Your task to perform on an android device: empty trash in google photos Image 0: 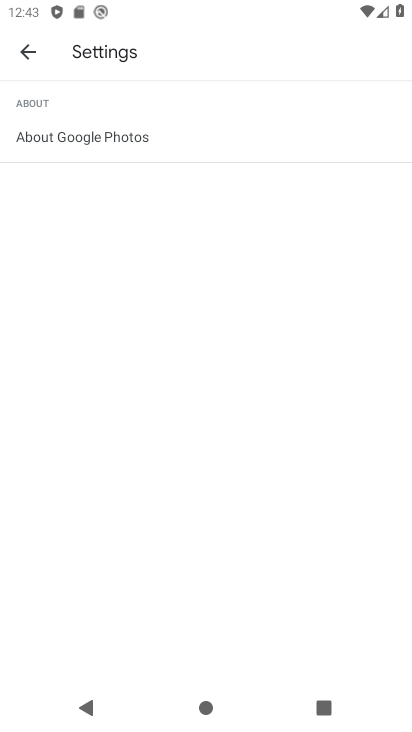
Step 0: click (230, 621)
Your task to perform on an android device: empty trash in google photos Image 1: 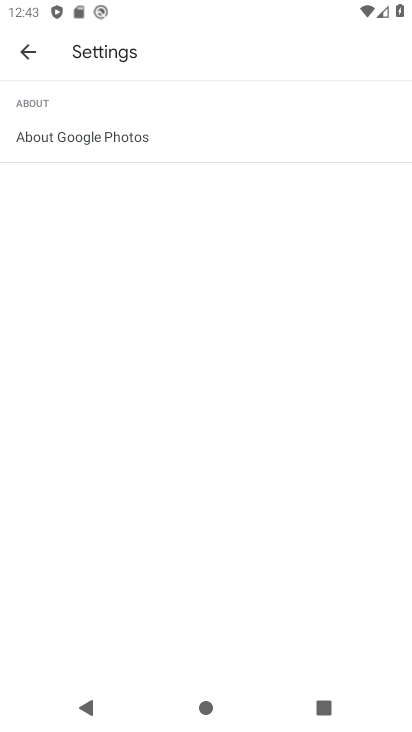
Step 1: press home button
Your task to perform on an android device: empty trash in google photos Image 2: 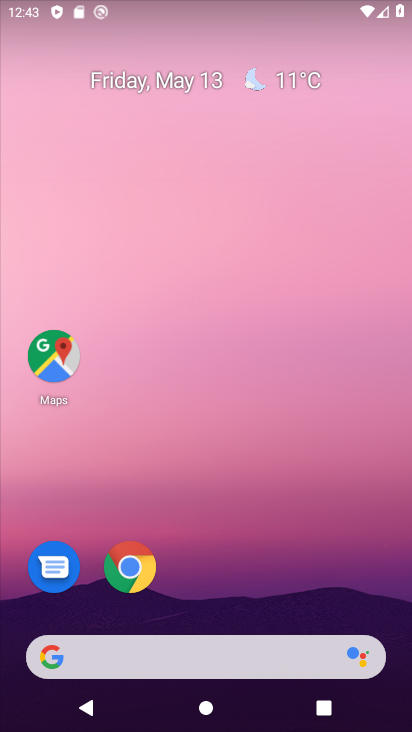
Step 2: drag from (195, 581) to (299, 153)
Your task to perform on an android device: empty trash in google photos Image 3: 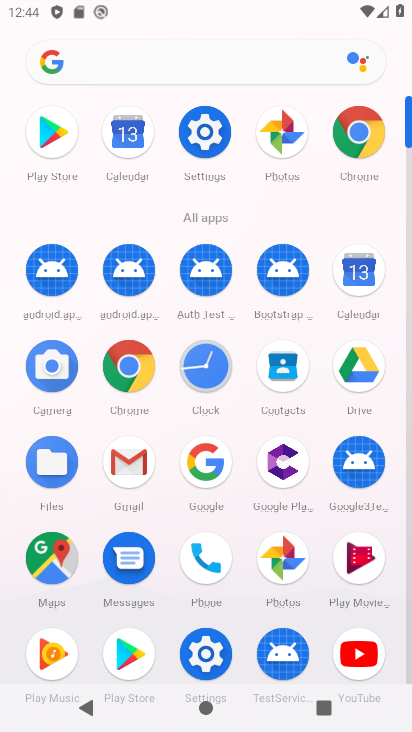
Step 3: click (292, 137)
Your task to perform on an android device: empty trash in google photos Image 4: 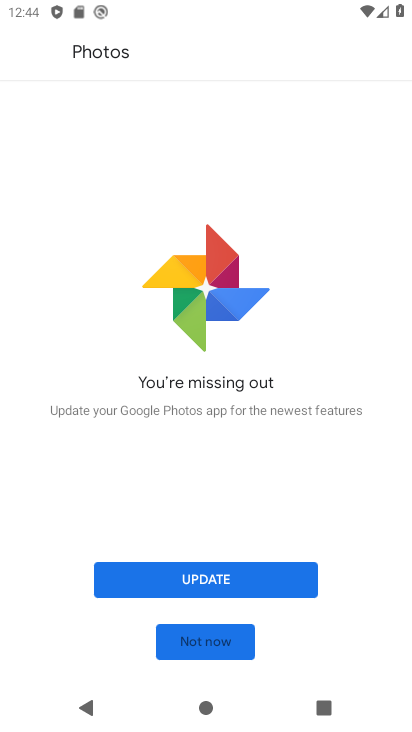
Step 4: click (205, 648)
Your task to perform on an android device: empty trash in google photos Image 5: 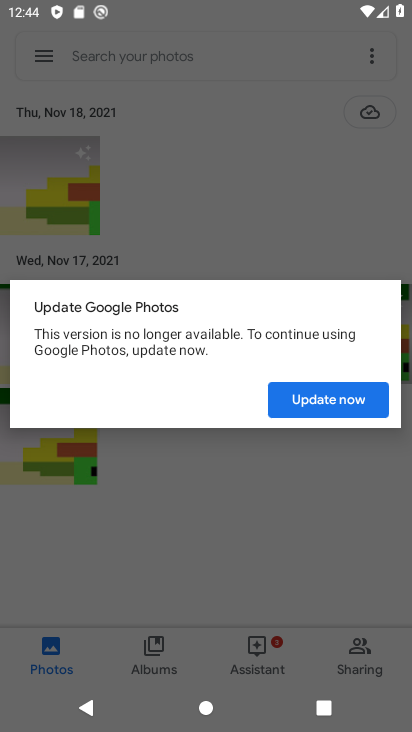
Step 5: click (335, 403)
Your task to perform on an android device: empty trash in google photos Image 6: 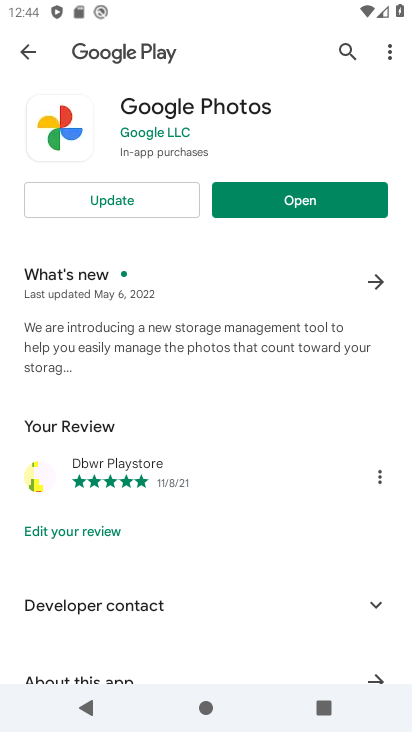
Step 6: click (136, 205)
Your task to perform on an android device: empty trash in google photos Image 7: 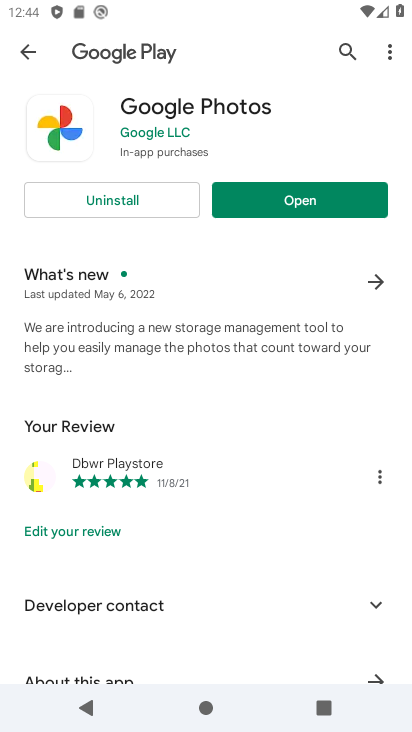
Step 7: click (232, 204)
Your task to perform on an android device: empty trash in google photos Image 8: 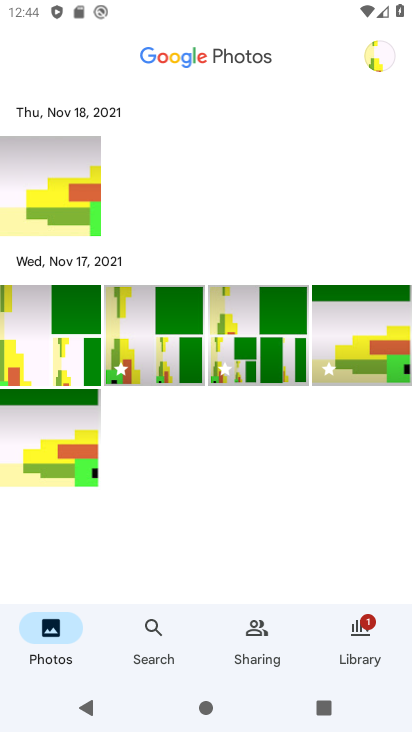
Step 8: click (366, 655)
Your task to perform on an android device: empty trash in google photos Image 9: 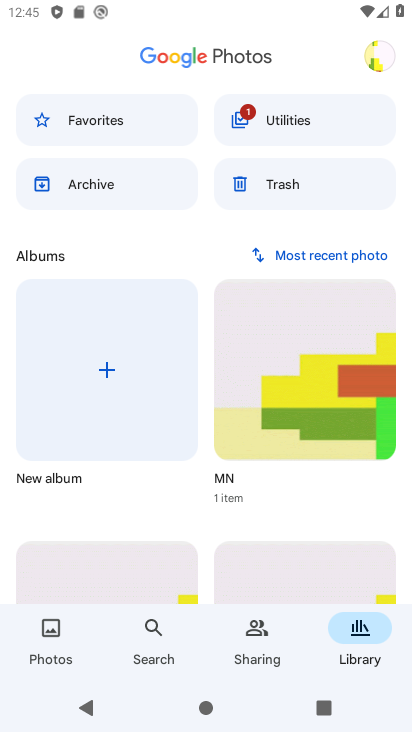
Step 9: click (260, 178)
Your task to perform on an android device: empty trash in google photos Image 10: 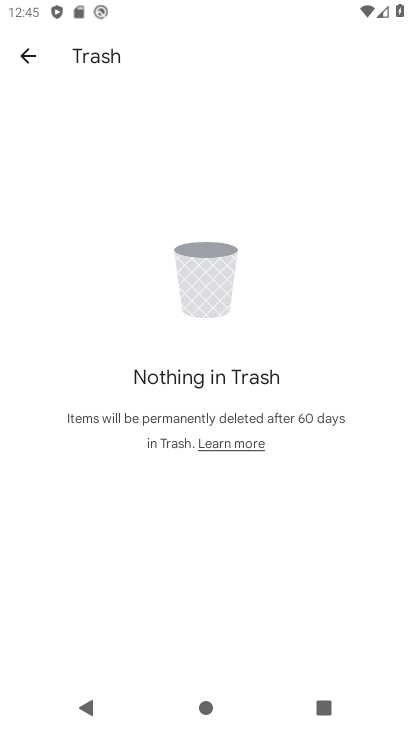
Step 10: task complete